Your task to perform on an android device: Open Google Maps Image 0: 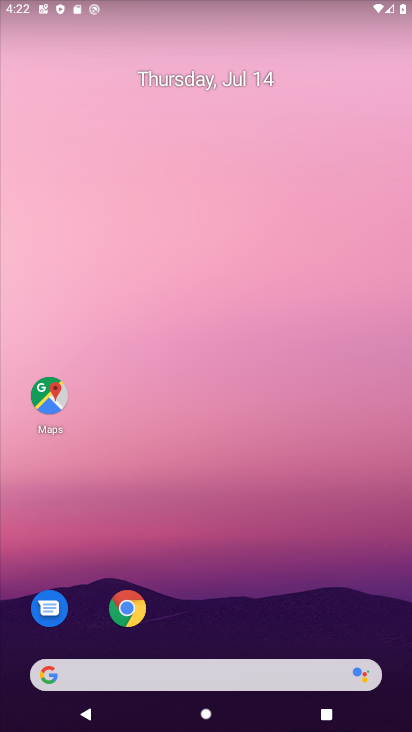
Step 0: click (59, 389)
Your task to perform on an android device: Open Google Maps Image 1: 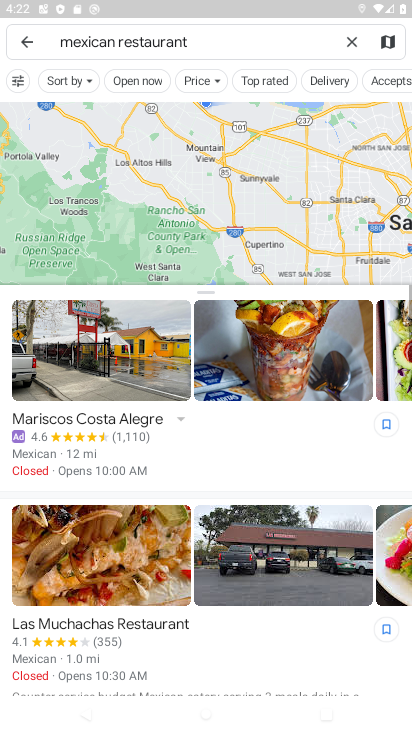
Step 1: click (356, 45)
Your task to perform on an android device: Open Google Maps Image 2: 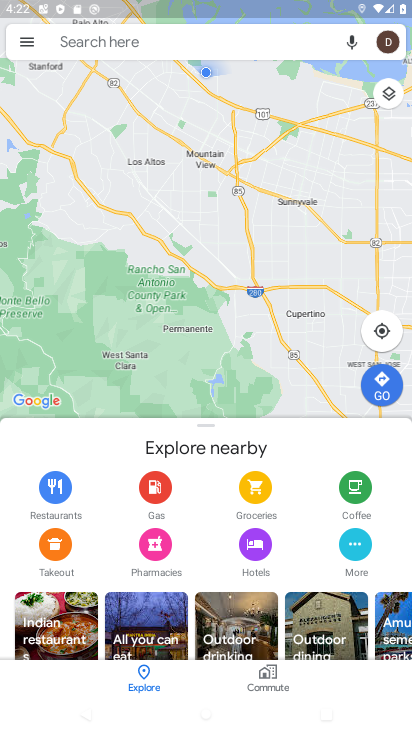
Step 2: task complete